Your task to perform on an android device: change your default location settings in chrome Image 0: 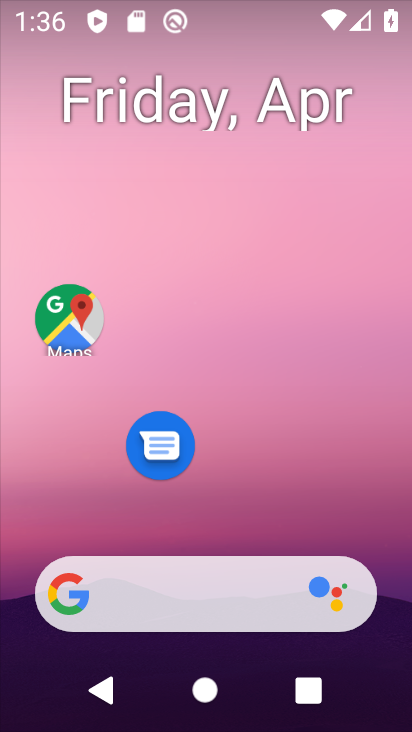
Step 0: drag from (237, 540) to (236, 95)
Your task to perform on an android device: change your default location settings in chrome Image 1: 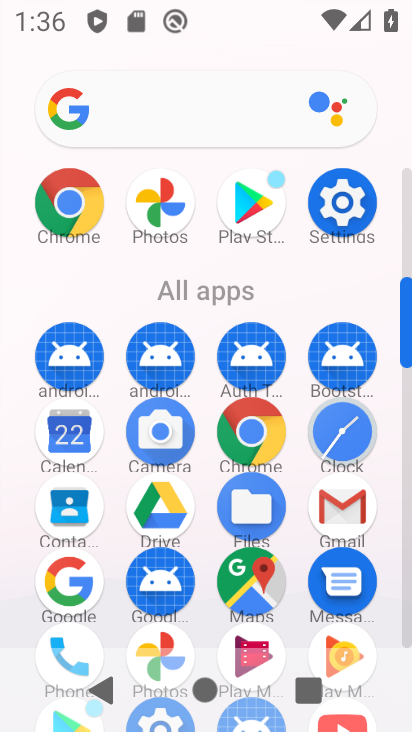
Step 1: click (62, 212)
Your task to perform on an android device: change your default location settings in chrome Image 2: 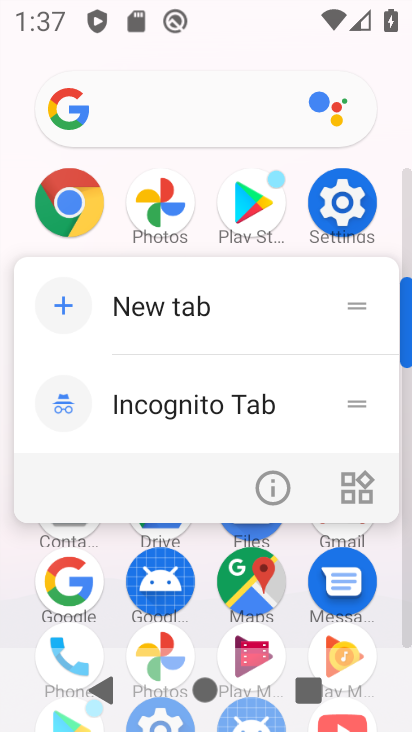
Step 2: click (64, 218)
Your task to perform on an android device: change your default location settings in chrome Image 3: 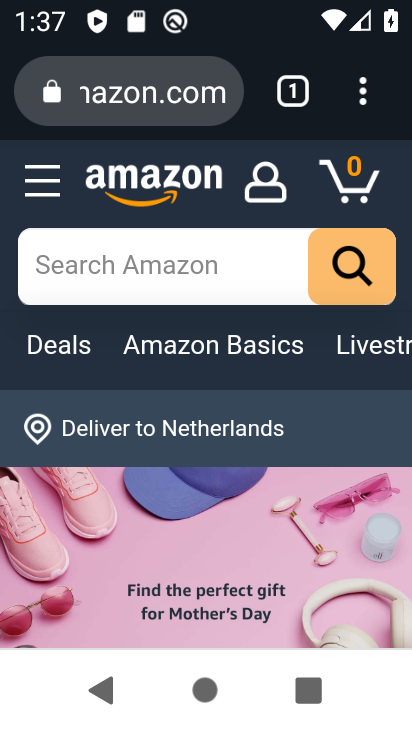
Step 3: click (357, 90)
Your task to perform on an android device: change your default location settings in chrome Image 4: 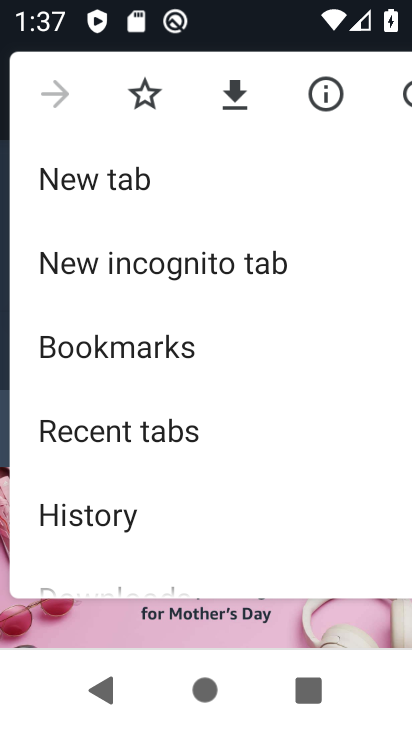
Step 4: drag from (154, 509) to (132, 255)
Your task to perform on an android device: change your default location settings in chrome Image 5: 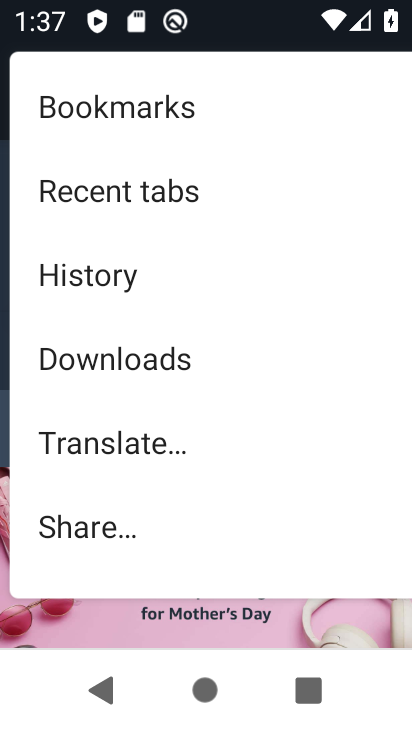
Step 5: drag from (167, 480) to (165, 298)
Your task to perform on an android device: change your default location settings in chrome Image 6: 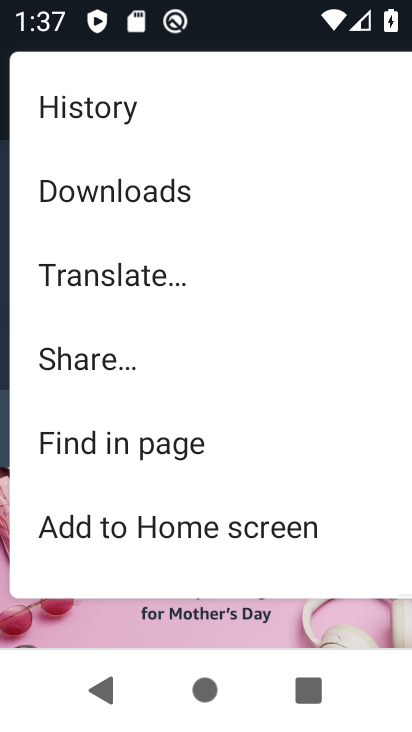
Step 6: drag from (176, 492) to (163, 257)
Your task to perform on an android device: change your default location settings in chrome Image 7: 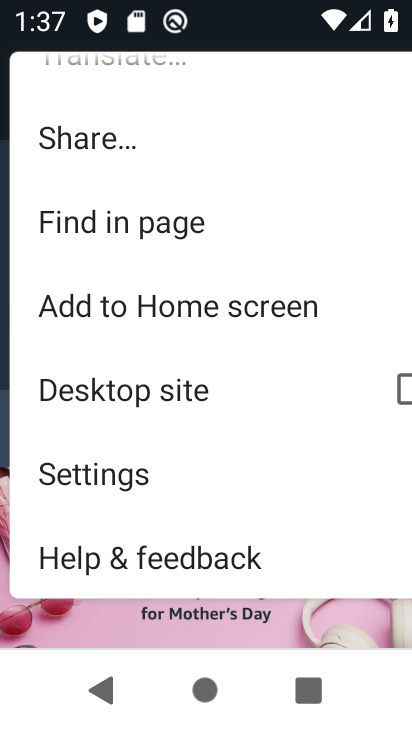
Step 7: click (159, 465)
Your task to perform on an android device: change your default location settings in chrome Image 8: 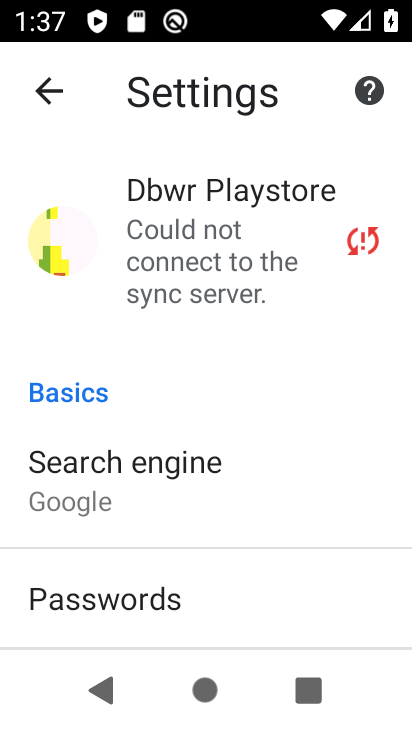
Step 8: drag from (188, 537) to (183, 380)
Your task to perform on an android device: change your default location settings in chrome Image 9: 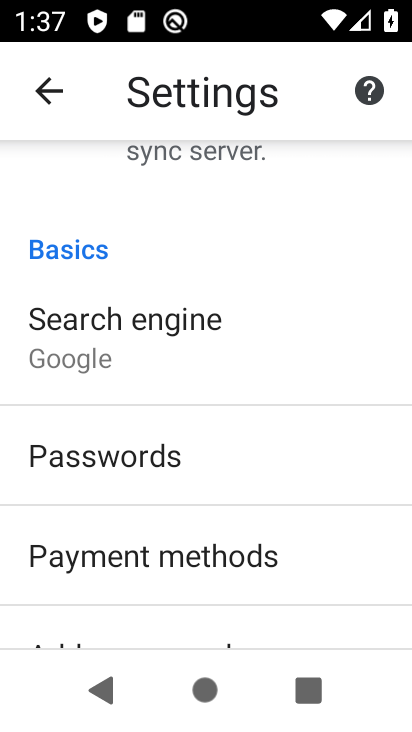
Step 9: drag from (224, 516) to (200, 377)
Your task to perform on an android device: change your default location settings in chrome Image 10: 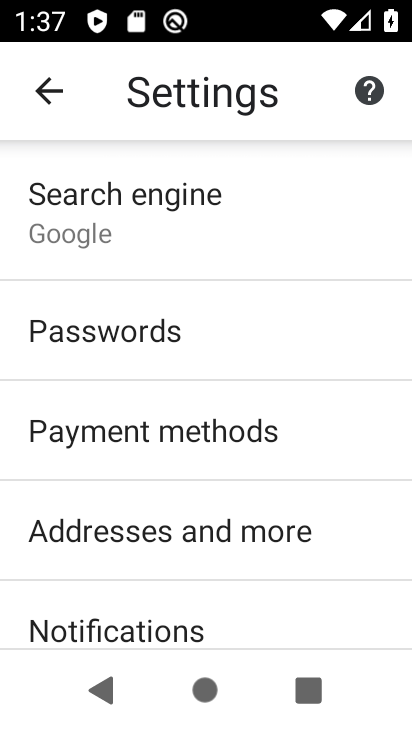
Step 10: drag from (248, 506) to (241, 370)
Your task to perform on an android device: change your default location settings in chrome Image 11: 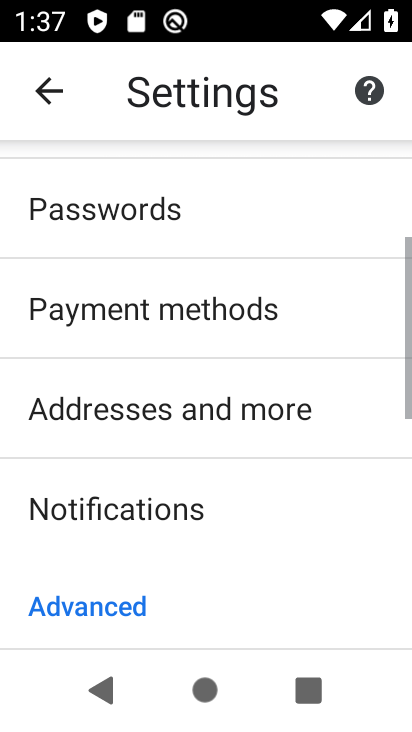
Step 11: drag from (219, 535) to (213, 364)
Your task to perform on an android device: change your default location settings in chrome Image 12: 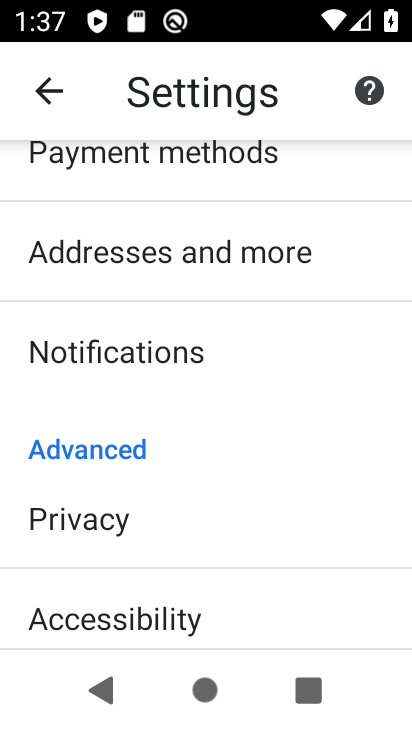
Step 12: drag from (230, 478) to (230, 315)
Your task to perform on an android device: change your default location settings in chrome Image 13: 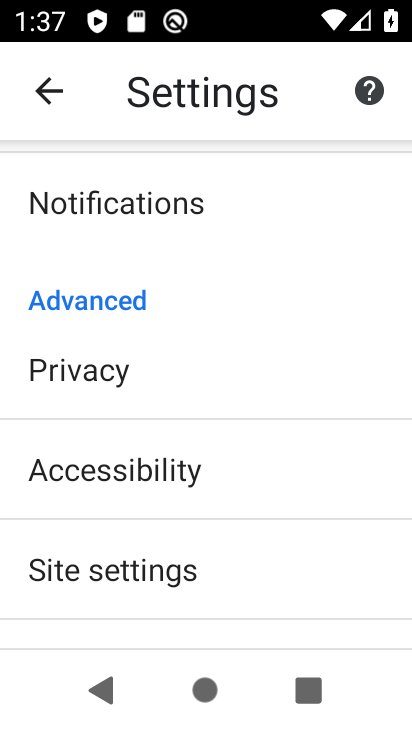
Step 13: click (211, 565)
Your task to perform on an android device: change your default location settings in chrome Image 14: 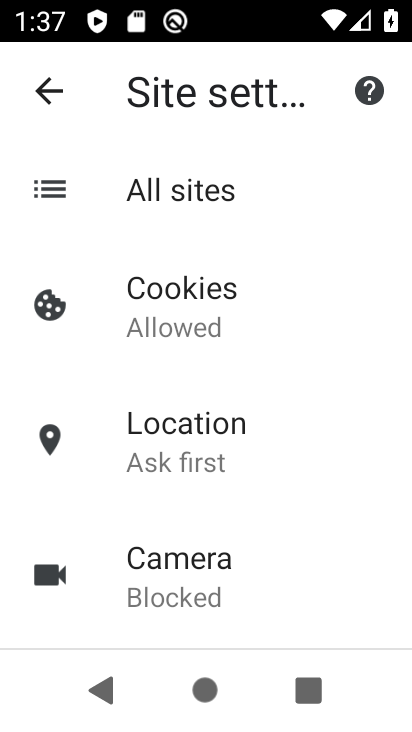
Step 14: click (194, 450)
Your task to perform on an android device: change your default location settings in chrome Image 15: 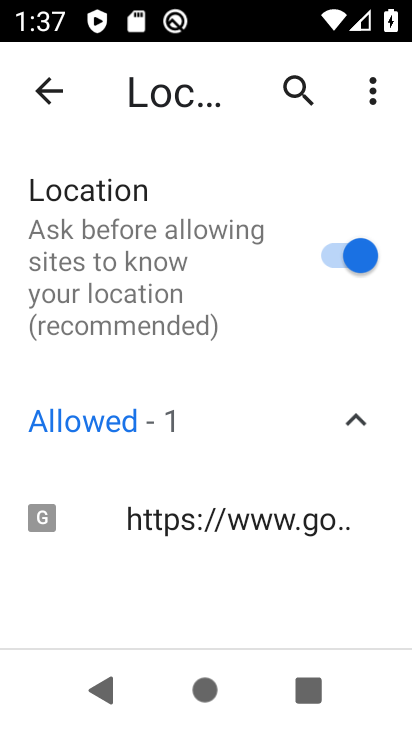
Step 15: click (316, 261)
Your task to perform on an android device: change your default location settings in chrome Image 16: 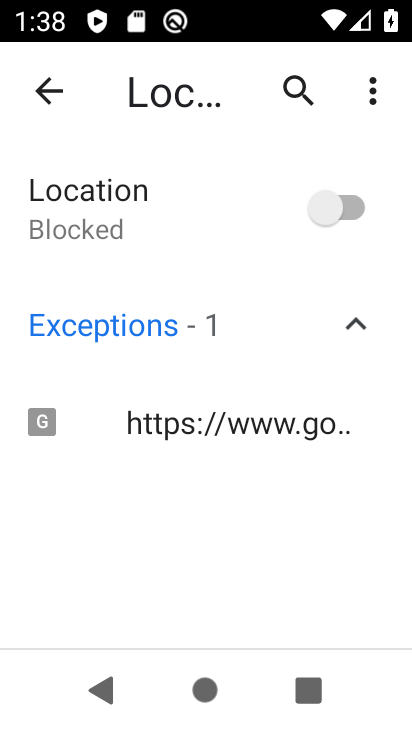
Step 16: task complete